Your task to perform on an android device: see tabs open on other devices in the chrome app Image 0: 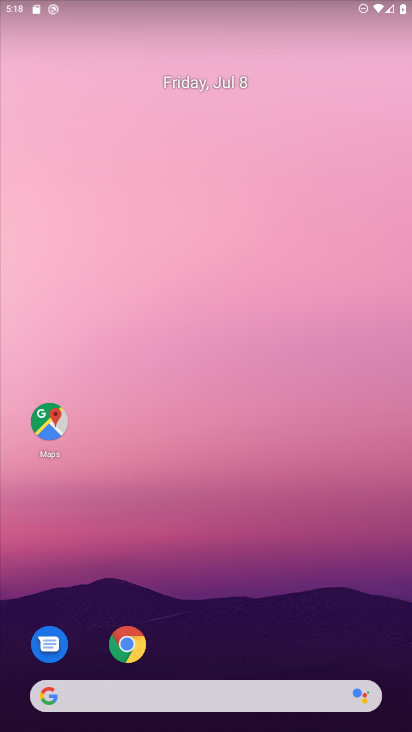
Step 0: click (127, 662)
Your task to perform on an android device: see tabs open on other devices in the chrome app Image 1: 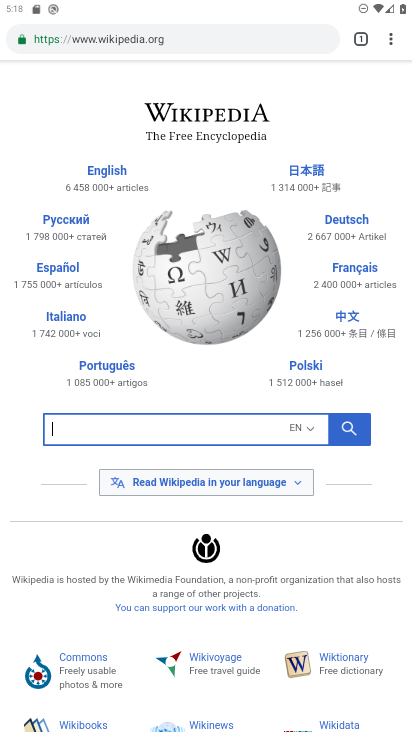
Step 1: click (389, 36)
Your task to perform on an android device: see tabs open on other devices in the chrome app Image 2: 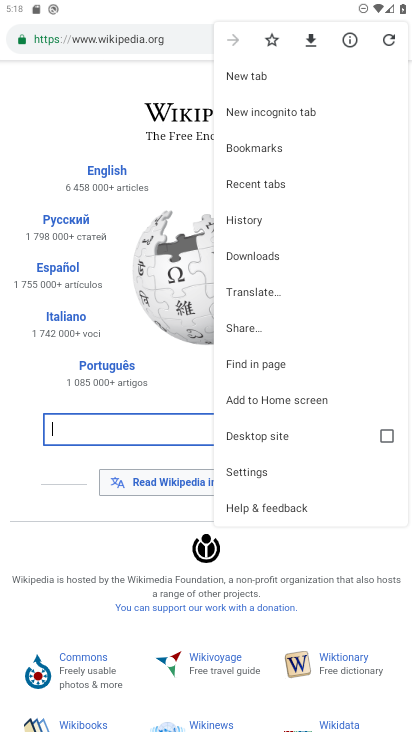
Step 2: click (253, 474)
Your task to perform on an android device: see tabs open on other devices in the chrome app Image 3: 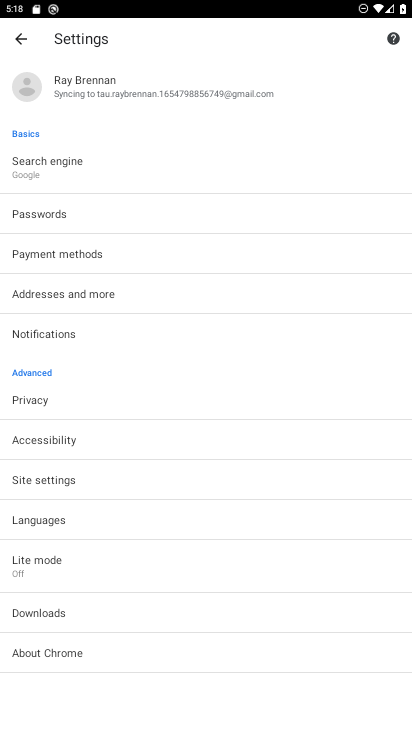
Step 3: click (38, 412)
Your task to perform on an android device: see tabs open on other devices in the chrome app Image 4: 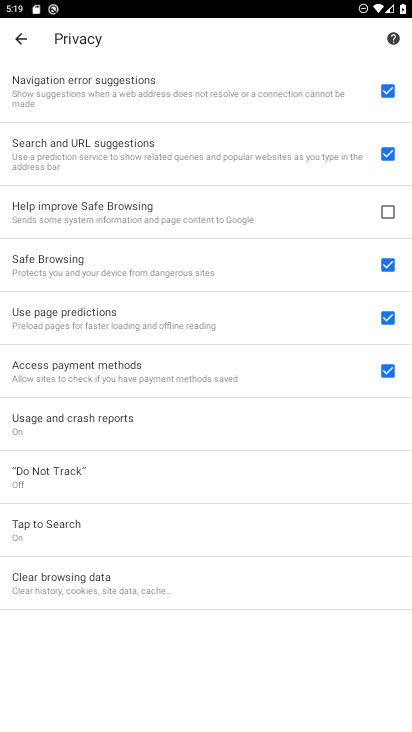
Step 4: click (9, 35)
Your task to perform on an android device: see tabs open on other devices in the chrome app Image 5: 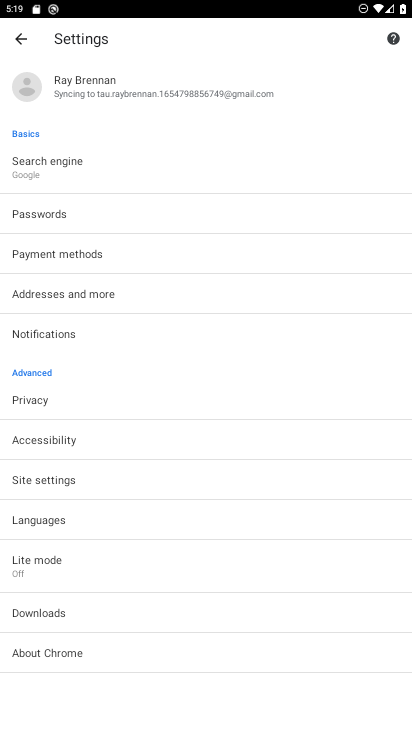
Step 5: click (10, 34)
Your task to perform on an android device: see tabs open on other devices in the chrome app Image 6: 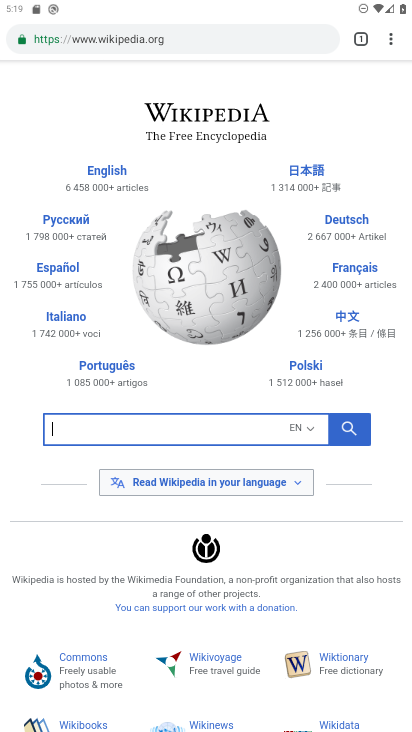
Step 6: task complete